Your task to perform on an android device: turn notification dots on Image 0: 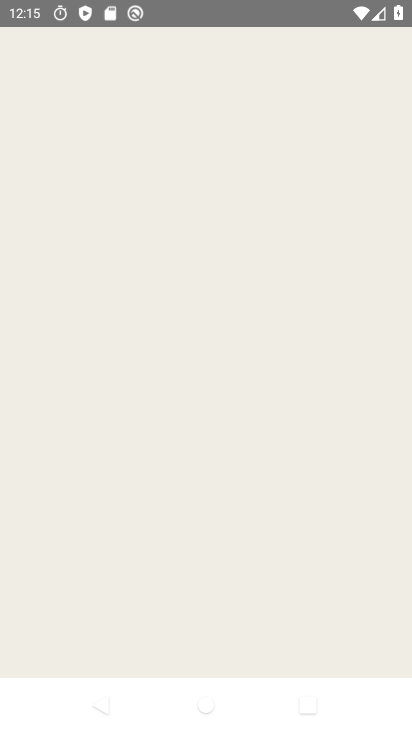
Step 0: click (127, 547)
Your task to perform on an android device: turn notification dots on Image 1: 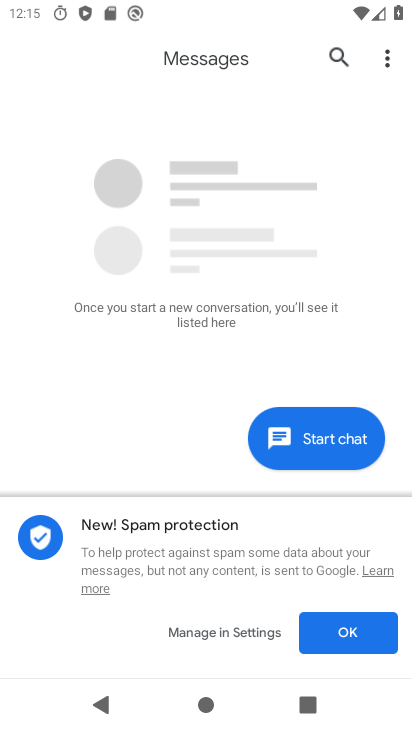
Step 1: drag from (270, 11) to (268, 722)
Your task to perform on an android device: turn notification dots on Image 2: 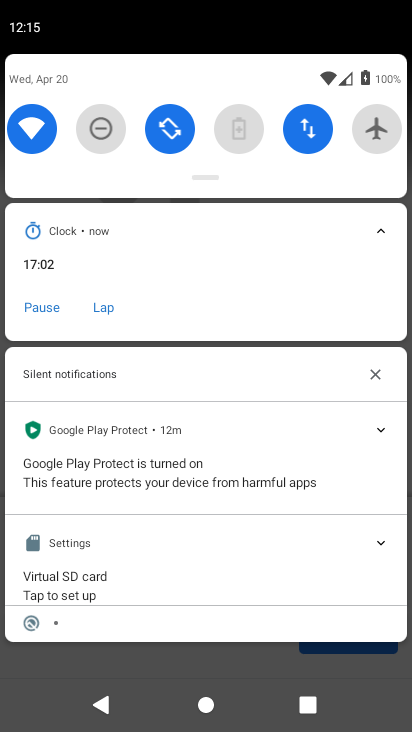
Step 2: drag from (211, 71) to (149, 669)
Your task to perform on an android device: turn notification dots on Image 3: 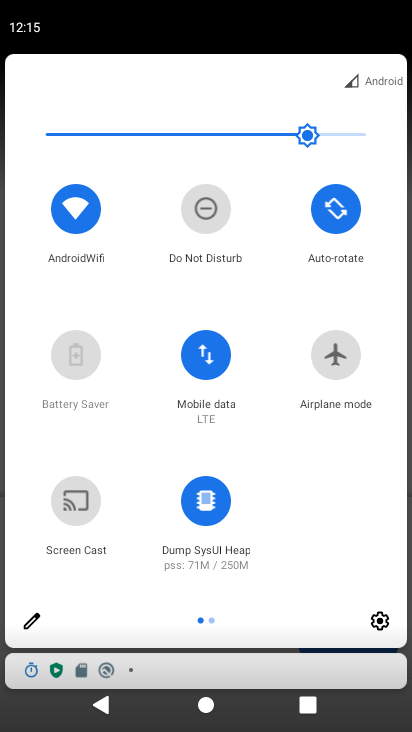
Step 3: click (381, 620)
Your task to perform on an android device: turn notification dots on Image 4: 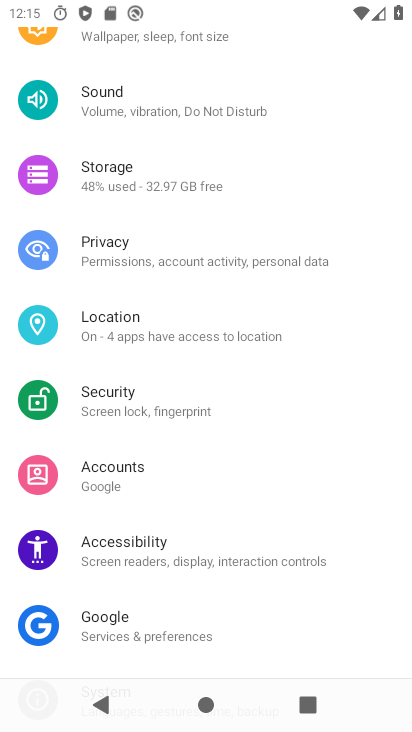
Step 4: drag from (233, 84) to (233, 613)
Your task to perform on an android device: turn notification dots on Image 5: 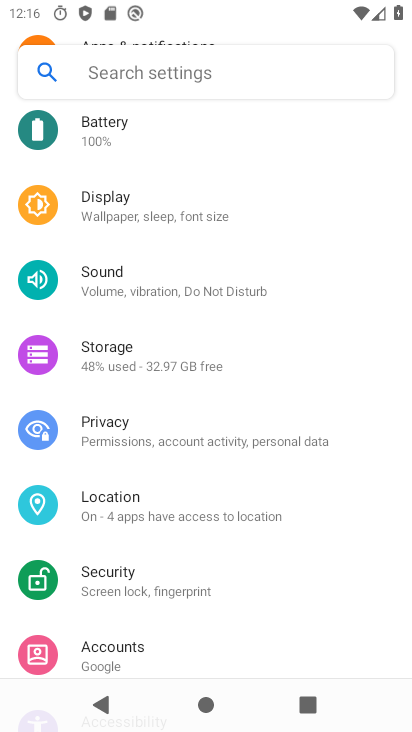
Step 5: drag from (194, 208) to (159, 636)
Your task to perform on an android device: turn notification dots on Image 6: 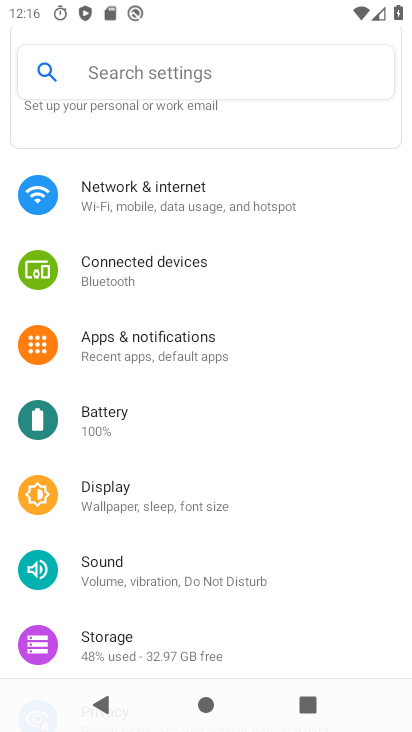
Step 6: click (116, 346)
Your task to perform on an android device: turn notification dots on Image 7: 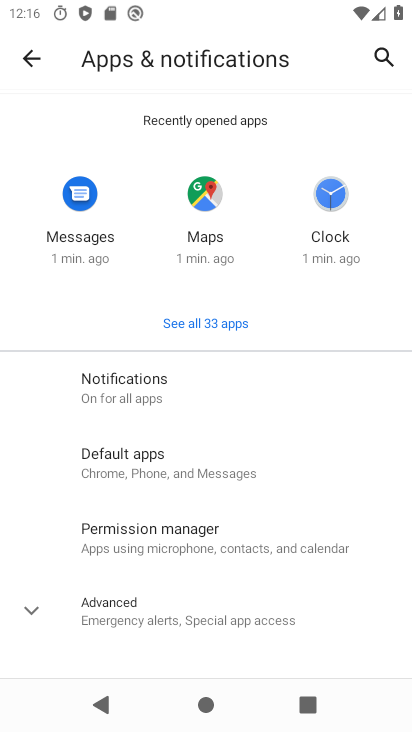
Step 7: click (154, 380)
Your task to perform on an android device: turn notification dots on Image 8: 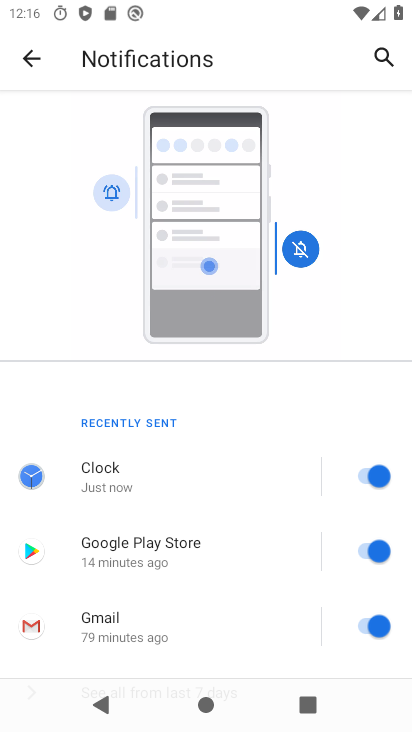
Step 8: drag from (133, 580) to (221, 16)
Your task to perform on an android device: turn notification dots on Image 9: 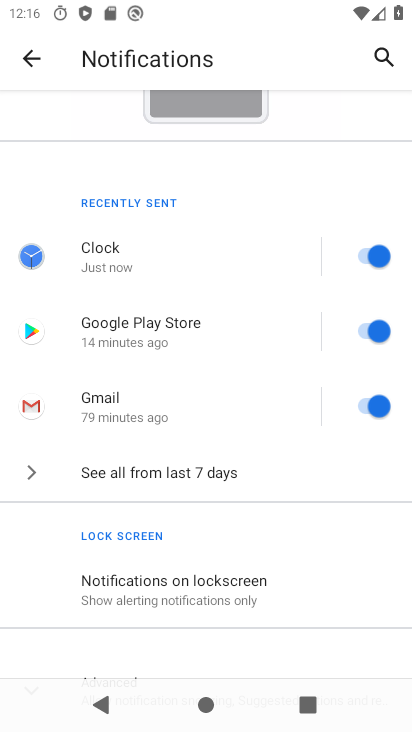
Step 9: drag from (116, 598) to (264, 106)
Your task to perform on an android device: turn notification dots on Image 10: 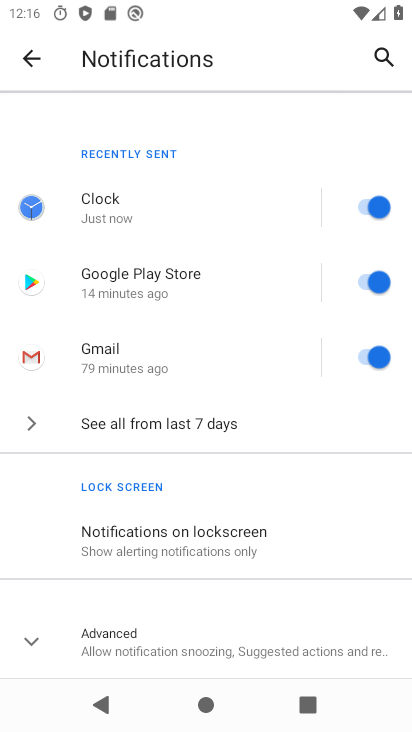
Step 10: drag from (130, 622) to (137, 215)
Your task to perform on an android device: turn notification dots on Image 11: 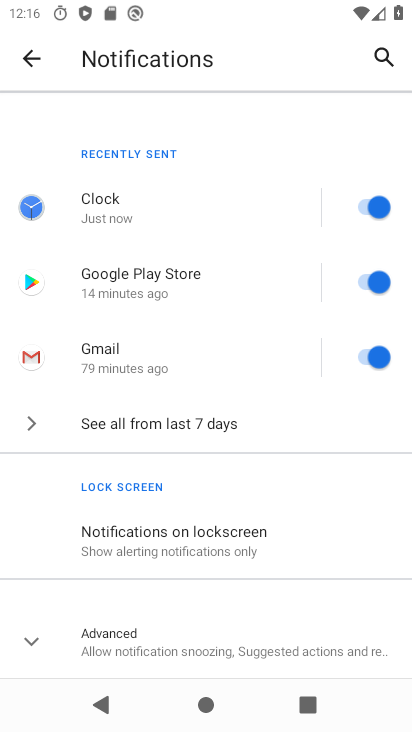
Step 11: click (237, 640)
Your task to perform on an android device: turn notification dots on Image 12: 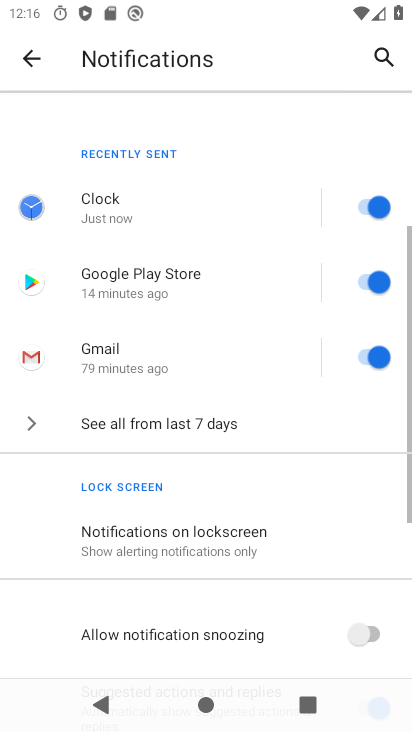
Step 12: drag from (237, 640) to (269, 162)
Your task to perform on an android device: turn notification dots on Image 13: 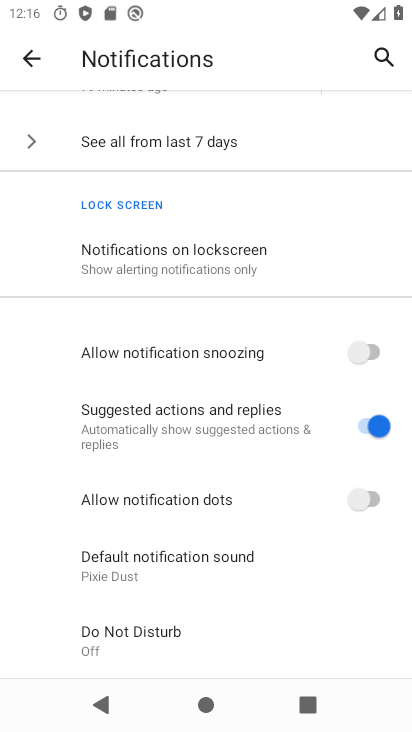
Step 13: click (366, 502)
Your task to perform on an android device: turn notification dots on Image 14: 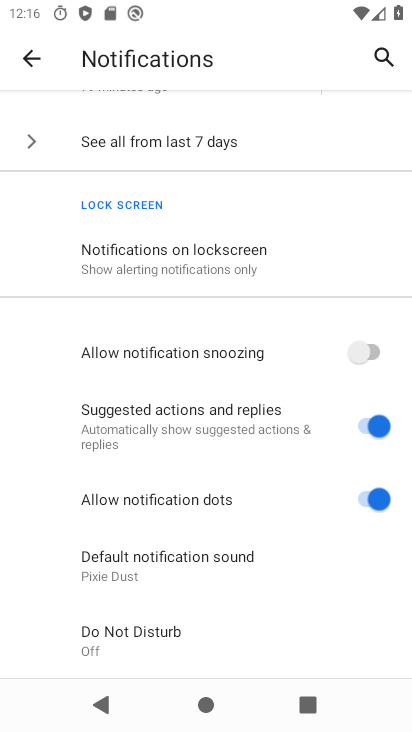
Step 14: task complete